Your task to perform on an android device: change the upload size in google photos Image 0: 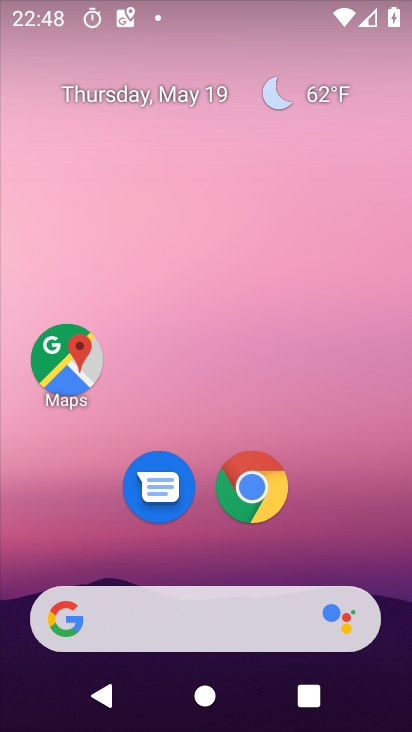
Step 0: drag from (323, 548) to (353, 87)
Your task to perform on an android device: change the upload size in google photos Image 1: 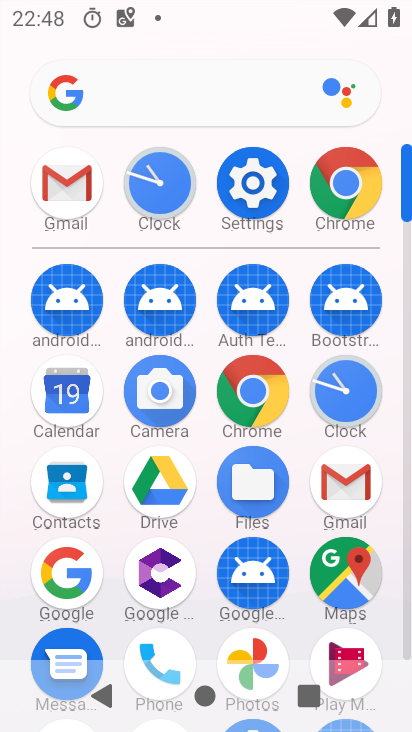
Step 1: click (254, 649)
Your task to perform on an android device: change the upload size in google photos Image 2: 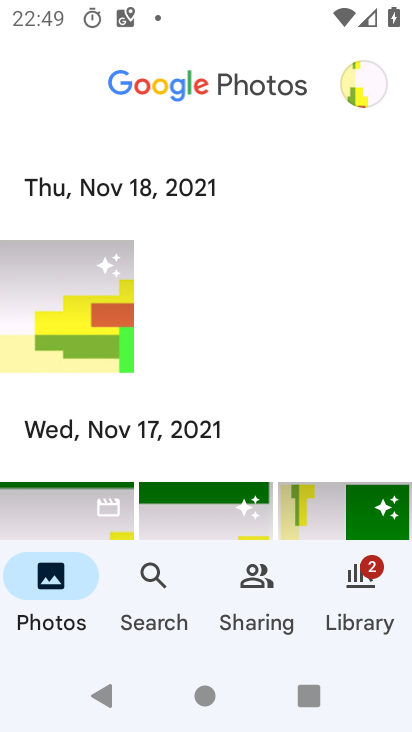
Step 2: click (356, 87)
Your task to perform on an android device: change the upload size in google photos Image 3: 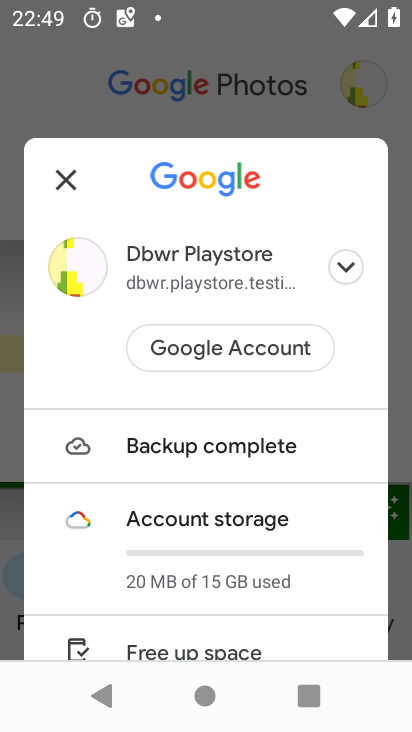
Step 3: drag from (282, 613) to (257, 390)
Your task to perform on an android device: change the upload size in google photos Image 4: 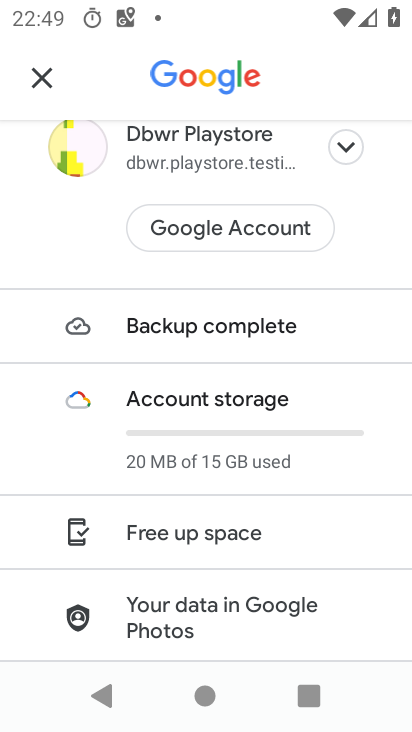
Step 4: drag from (319, 624) to (291, 357)
Your task to perform on an android device: change the upload size in google photos Image 5: 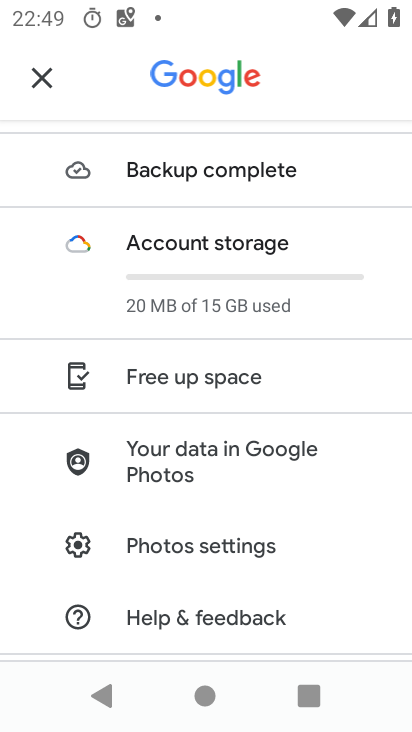
Step 5: click (227, 551)
Your task to perform on an android device: change the upload size in google photos Image 6: 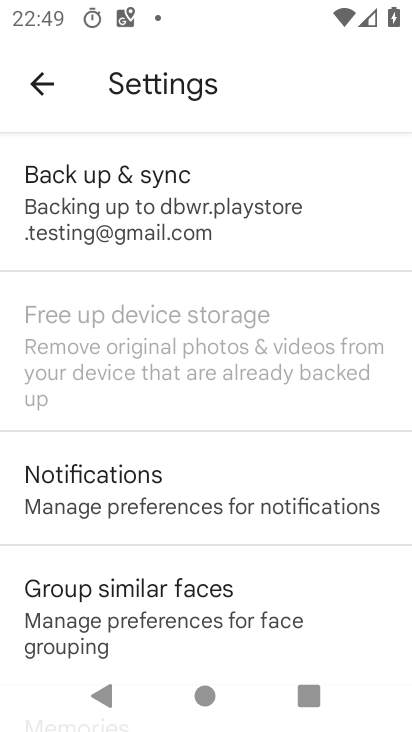
Step 6: click (268, 200)
Your task to perform on an android device: change the upload size in google photos Image 7: 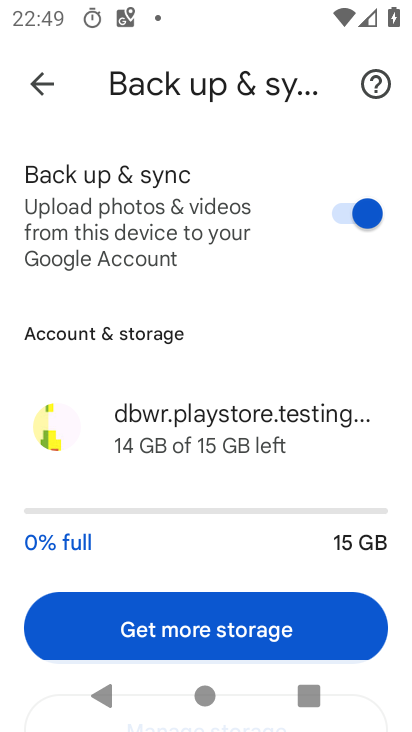
Step 7: drag from (289, 545) to (286, 215)
Your task to perform on an android device: change the upload size in google photos Image 8: 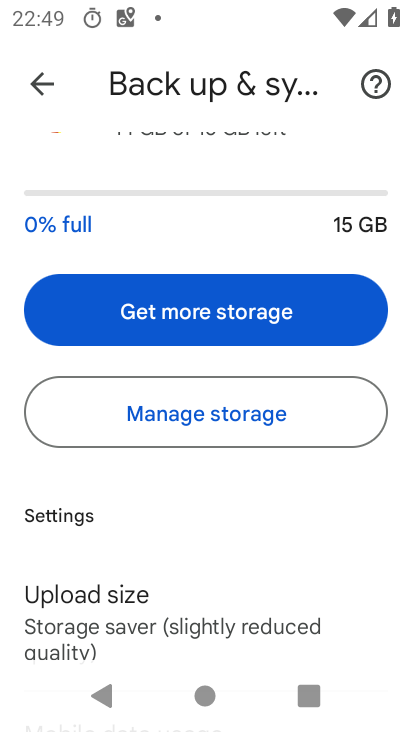
Step 8: drag from (255, 578) to (225, 352)
Your task to perform on an android device: change the upload size in google photos Image 9: 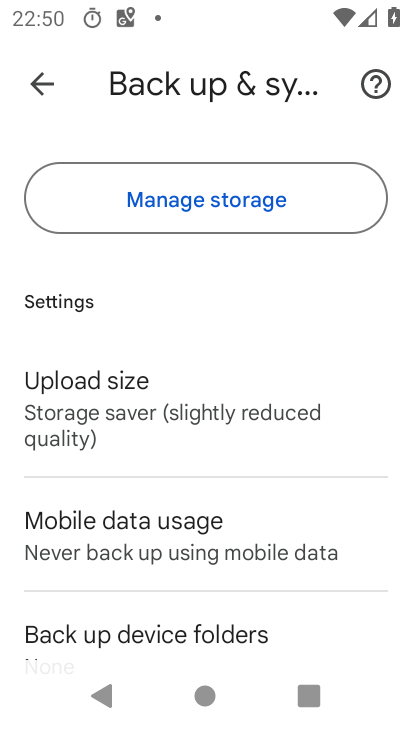
Step 9: click (206, 411)
Your task to perform on an android device: change the upload size in google photos Image 10: 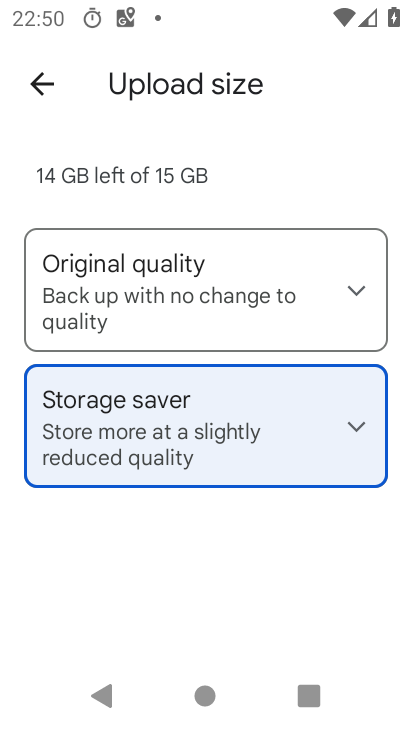
Step 10: click (225, 296)
Your task to perform on an android device: change the upload size in google photos Image 11: 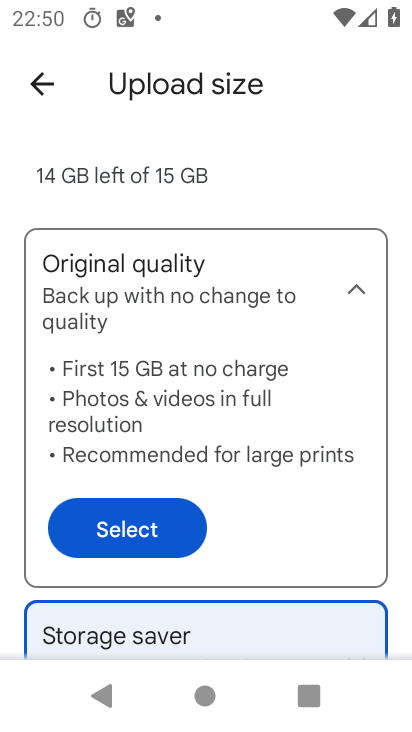
Step 11: click (141, 537)
Your task to perform on an android device: change the upload size in google photos Image 12: 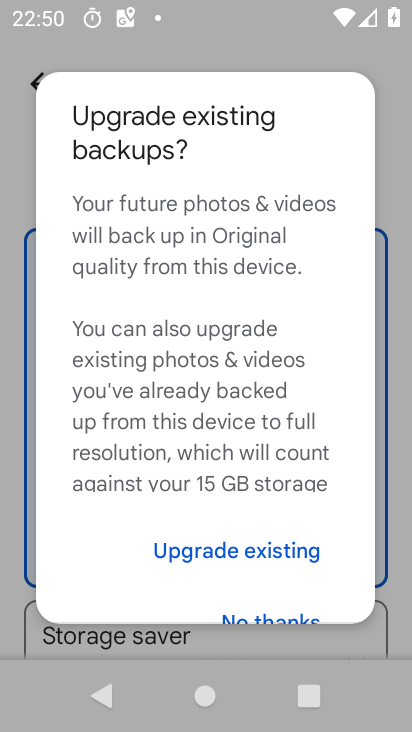
Step 12: click (231, 558)
Your task to perform on an android device: change the upload size in google photos Image 13: 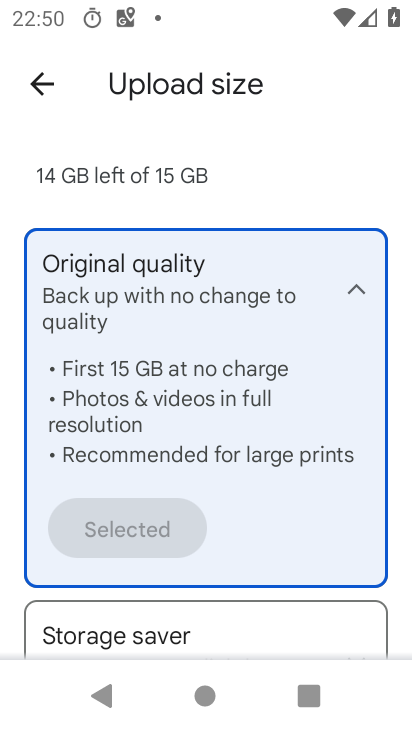
Step 13: task complete